Your task to perform on an android device: uninstall "Venmo" Image 0: 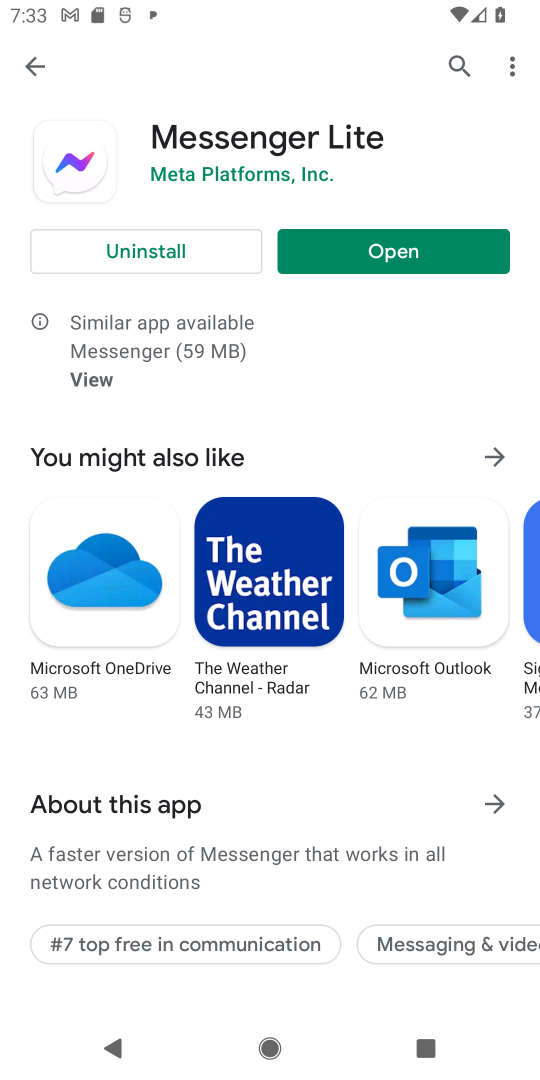
Step 0: click (446, 52)
Your task to perform on an android device: uninstall "Venmo" Image 1: 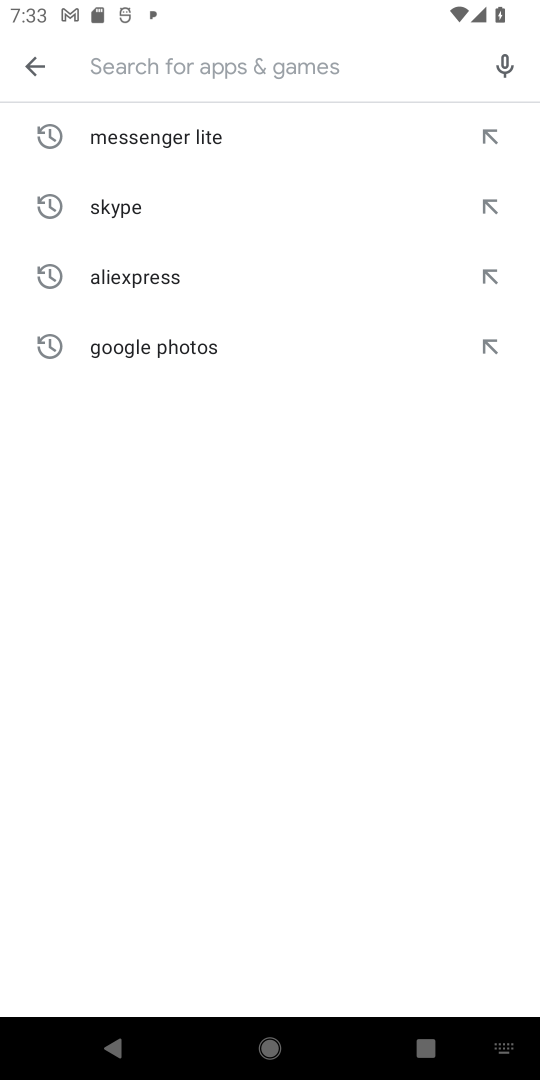
Step 1: type "venmo"
Your task to perform on an android device: uninstall "Venmo" Image 2: 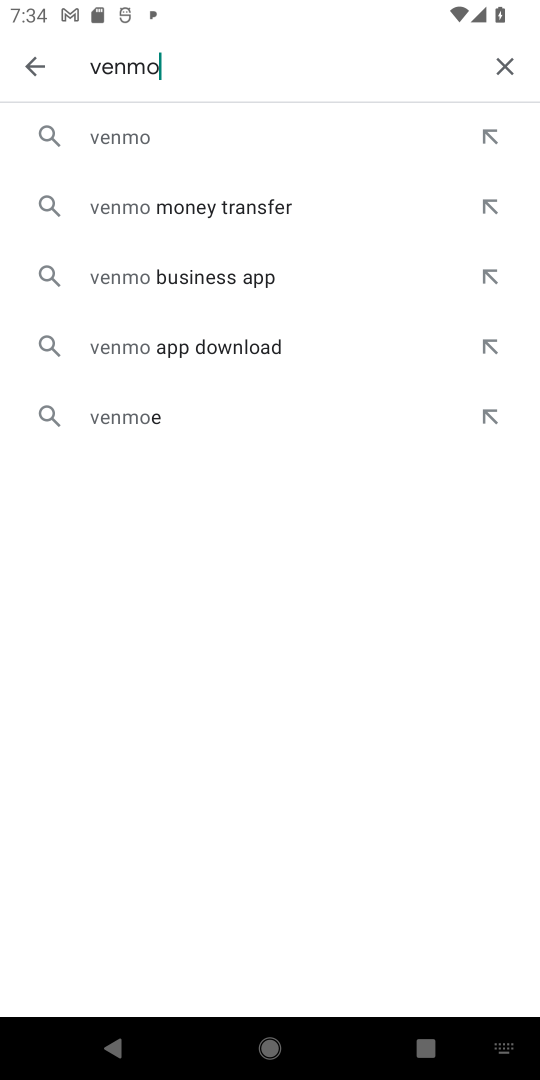
Step 2: click (227, 144)
Your task to perform on an android device: uninstall "Venmo" Image 3: 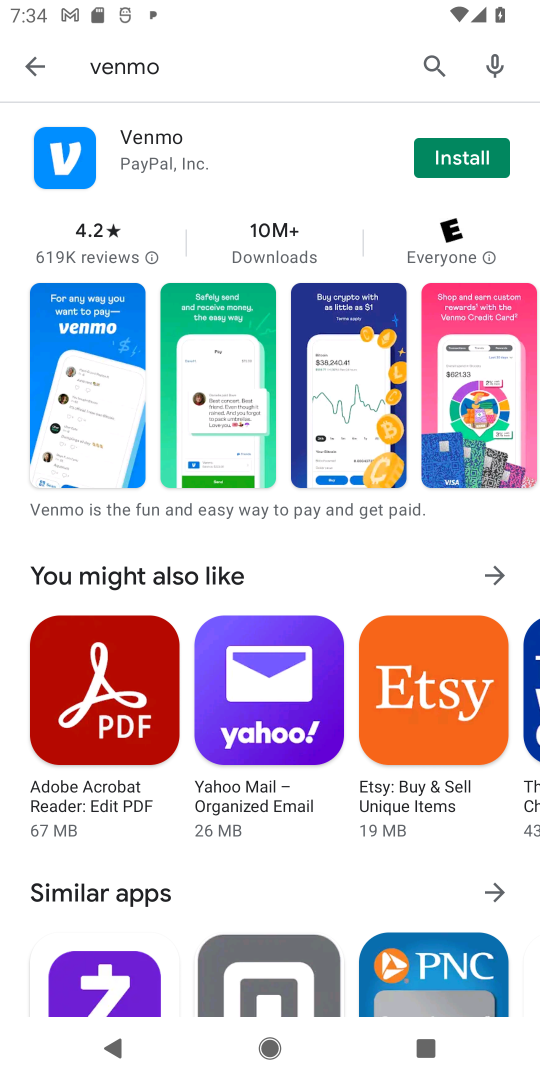
Step 3: click (246, 141)
Your task to perform on an android device: uninstall "Venmo" Image 4: 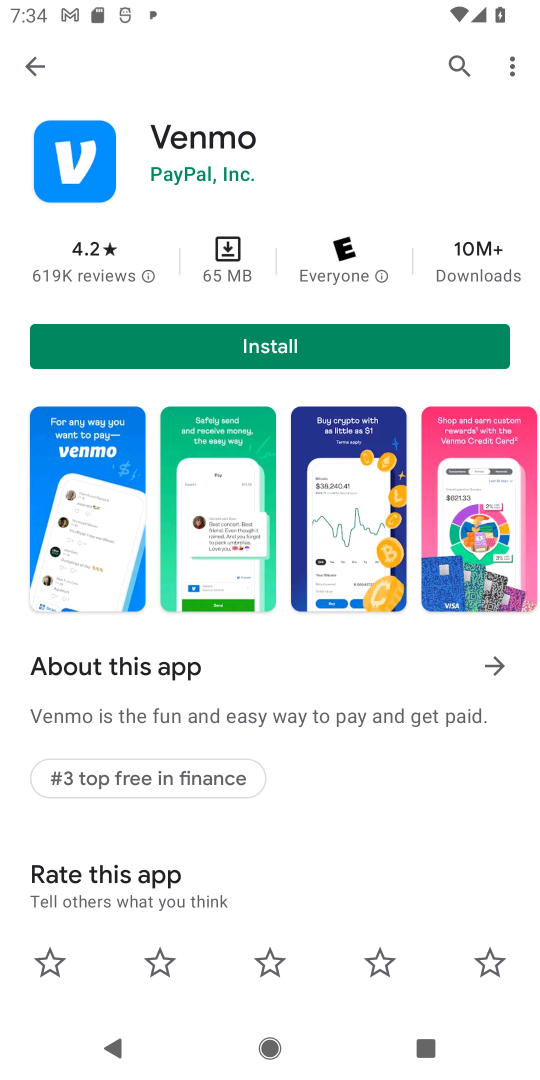
Step 4: task complete